Your task to perform on an android device: check storage Image 0: 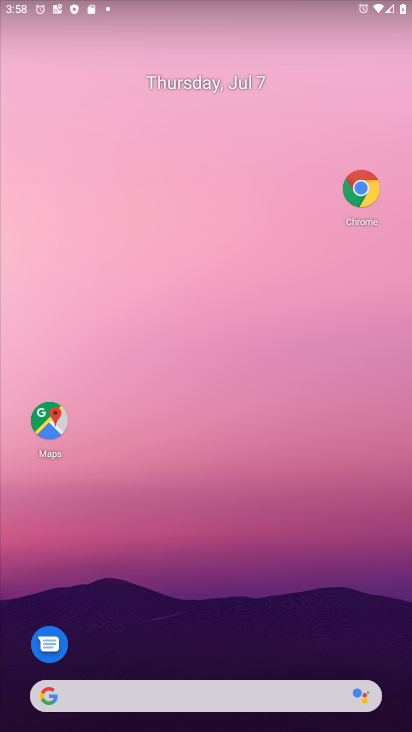
Step 0: drag from (211, 576) to (279, 7)
Your task to perform on an android device: check storage Image 1: 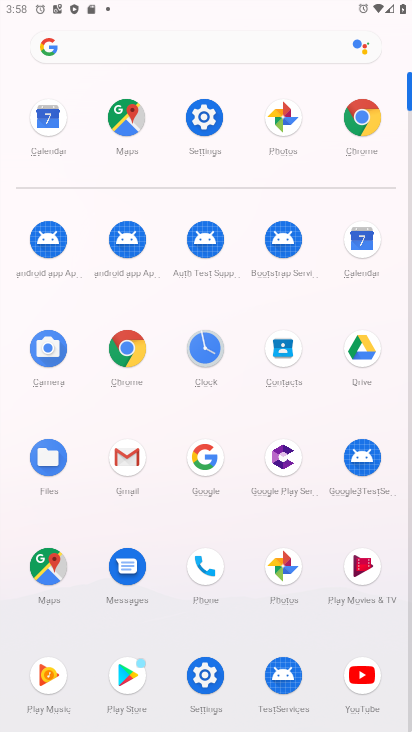
Step 1: click (212, 695)
Your task to perform on an android device: check storage Image 2: 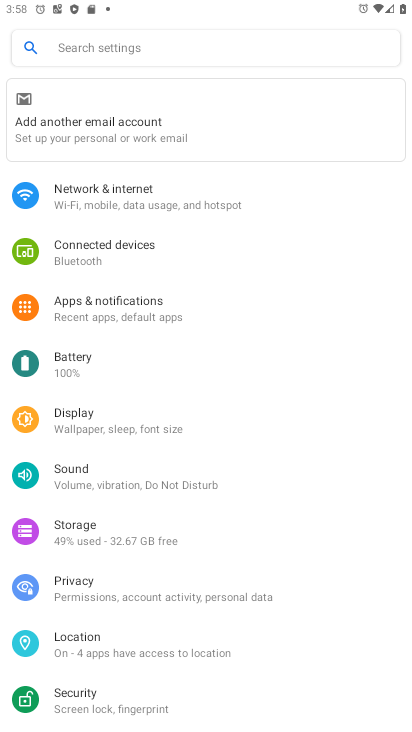
Step 2: click (68, 550)
Your task to perform on an android device: check storage Image 3: 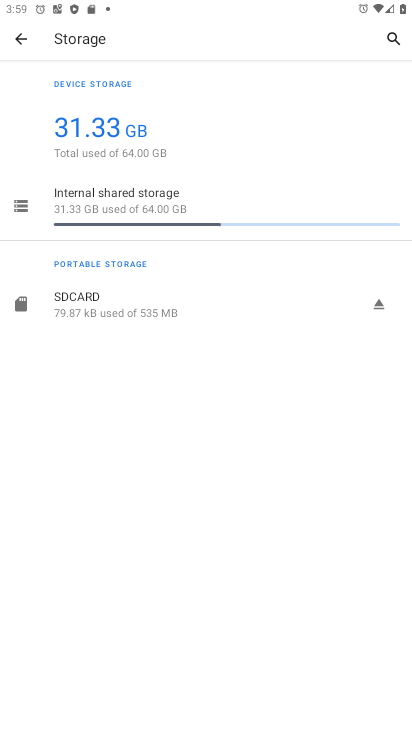
Step 3: task complete